Your task to perform on an android device: change timer sound Image 0: 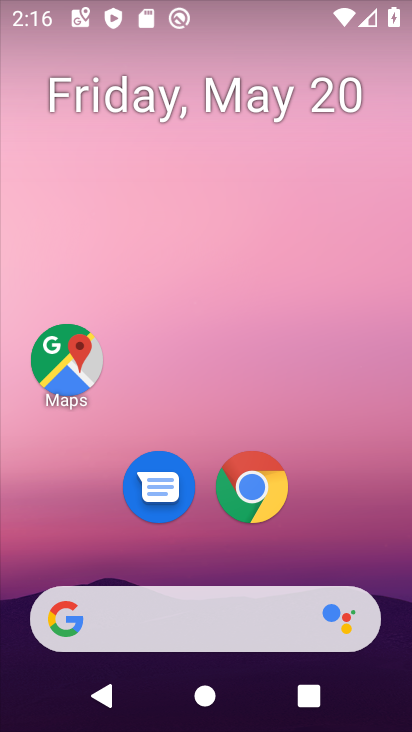
Step 0: drag from (326, 476) to (382, 0)
Your task to perform on an android device: change timer sound Image 1: 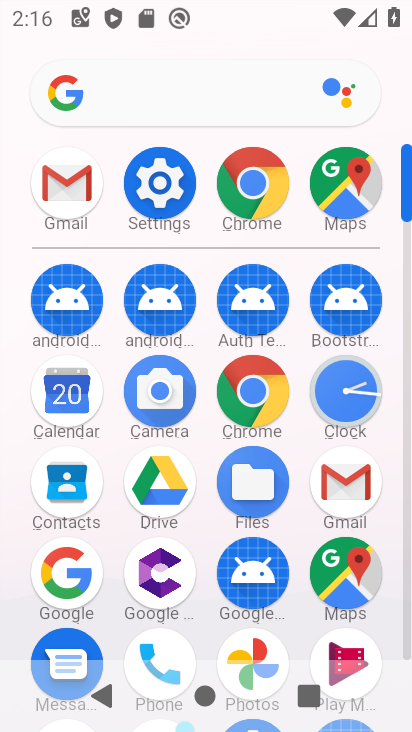
Step 1: click (349, 409)
Your task to perform on an android device: change timer sound Image 2: 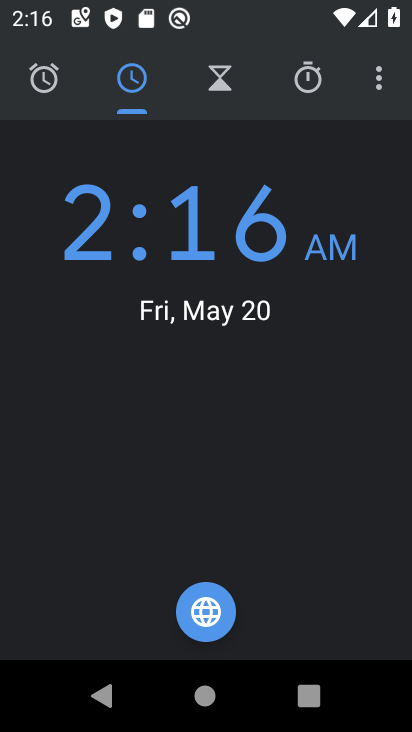
Step 2: click (398, 92)
Your task to perform on an android device: change timer sound Image 3: 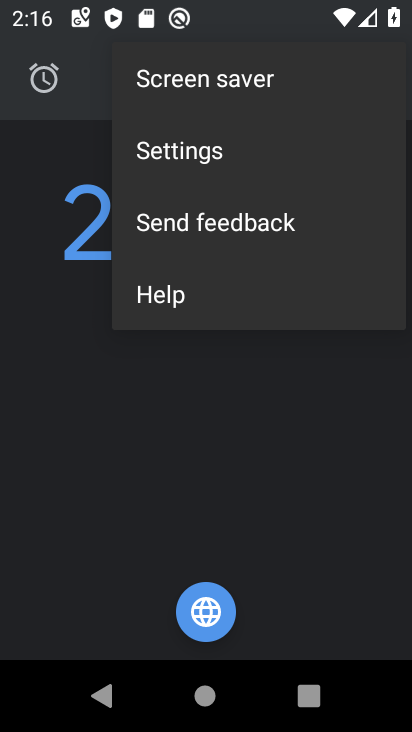
Step 3: click (211, 157)
Your task to perform on an android device: change timer sound Image 4: 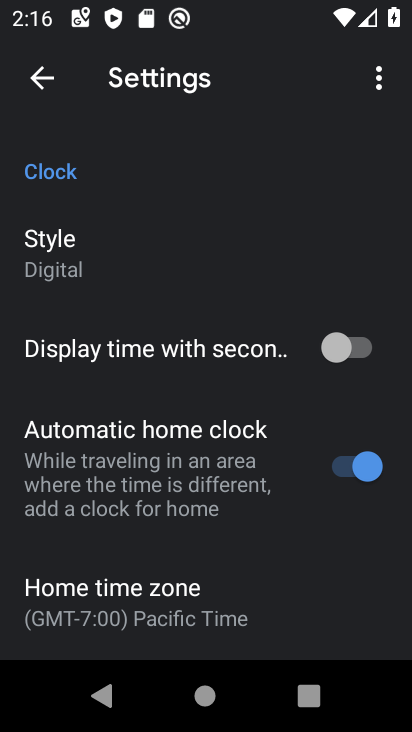
Step 4: drag from (197, 593) to (199, 258)
Your task to perform on an android device: change timer sound Image 5: 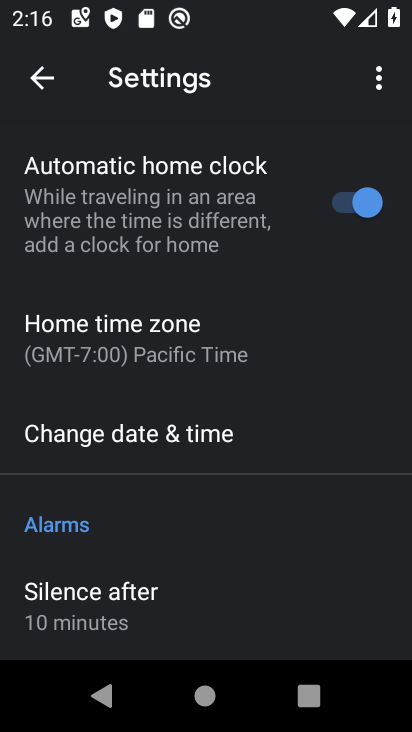
Step 5: drag from (233, 560) to (235, 196)
Your task to perform on an android device: change timer sound Image 6: 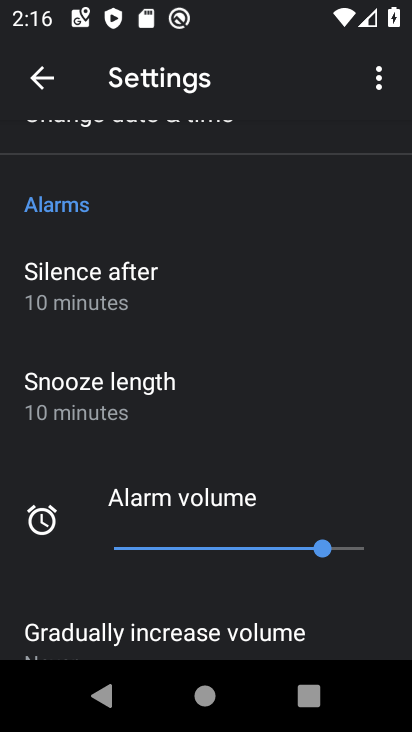
Step 6: drag from (266, 552) to (290, 221)
Your task to perform on an android device: change timer sound Image 7: 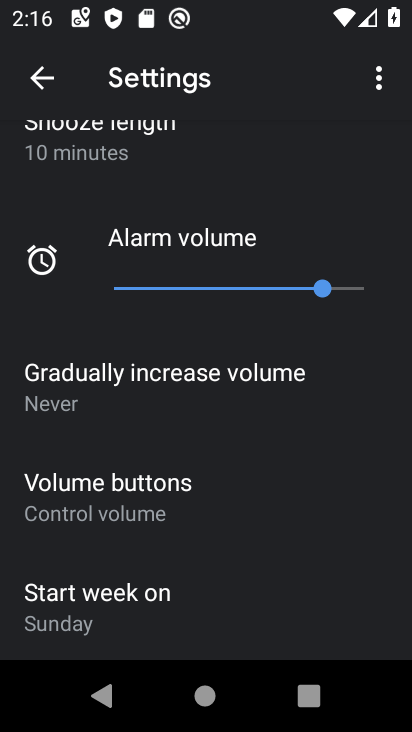
Step 7: drag from (161, 584) to (150, 242)
Your task to perform on an android device: change timer sound Image 8: 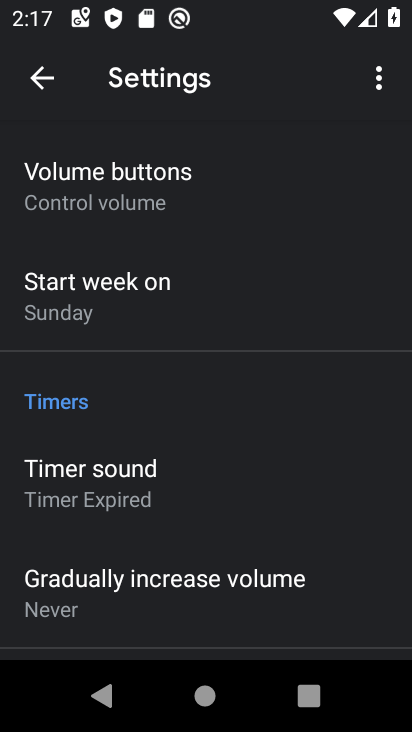
Step 8: click (97, 489)
Your task to perform on an android device: change timer sound Image 9: 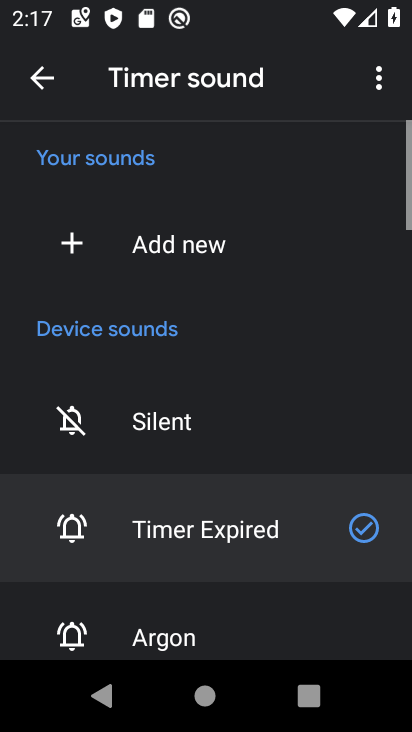
Step 9: click (104, 624)
Your task to perform on an android device: change timer sound Image 10: 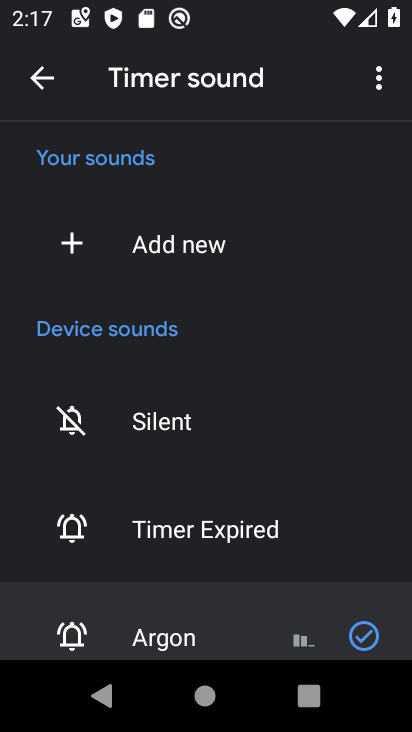
Step 10: task complete